Your task to perform on an android device: Open Chrome and go to the settings page Image 0: 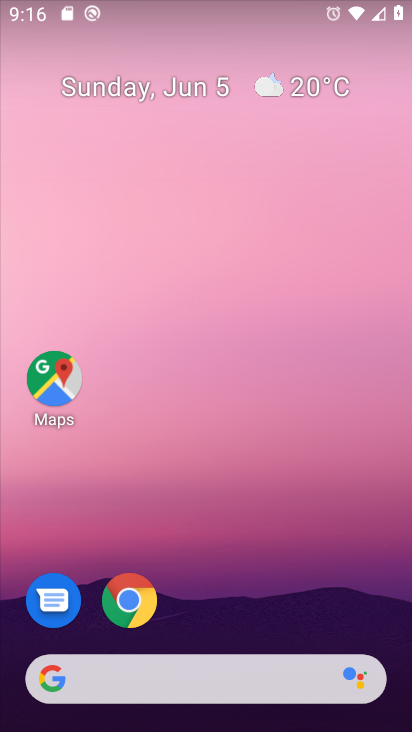
Step 0: click (140, 592)
Your task to perform on an android device: Open Chrome and go to the settings page Image 1: 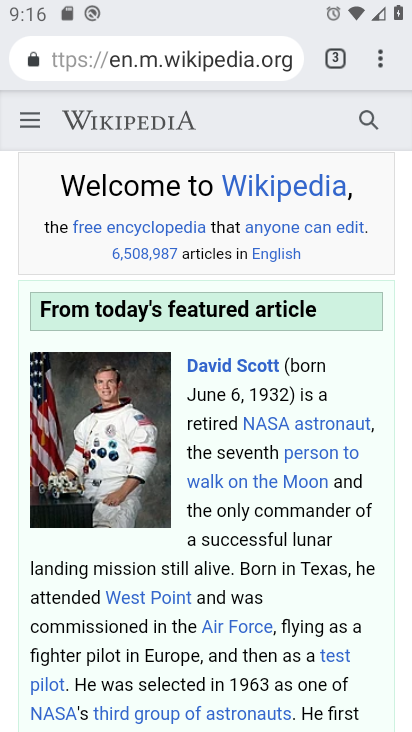
Step 1: click (383, 64)
Your task to perform on an android device: Open Chrome and go to the settings page Image 2: 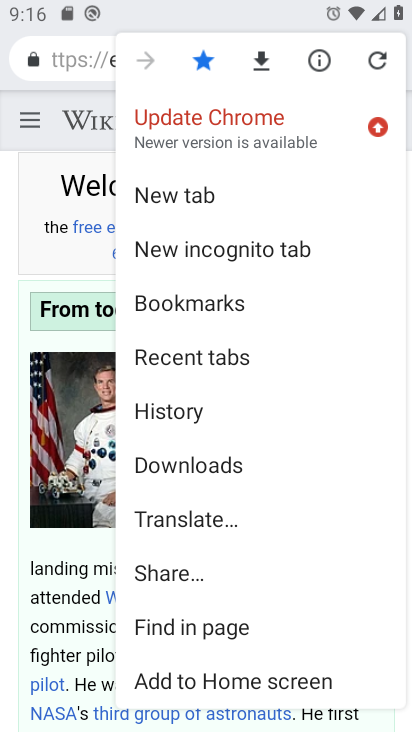
Step 2: drag from (273, 568) to (288, 152)
Your task to perform on an android device: Open Chrome and go to the settings page Image 3: 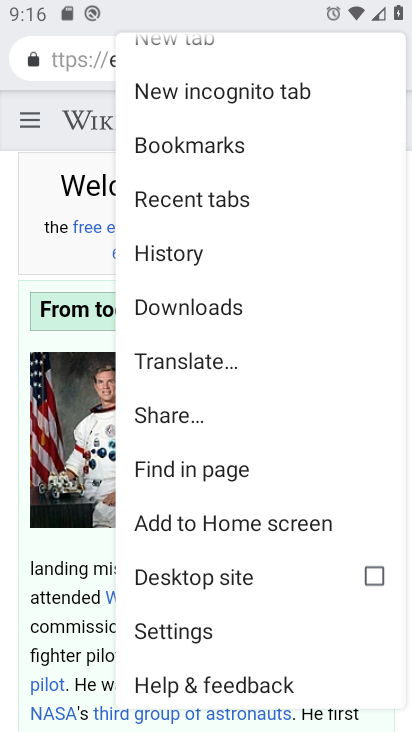
Step 3: click (216, 617)
Your task to perform on an android device: Open Chrome and go to the settings page Image 4: 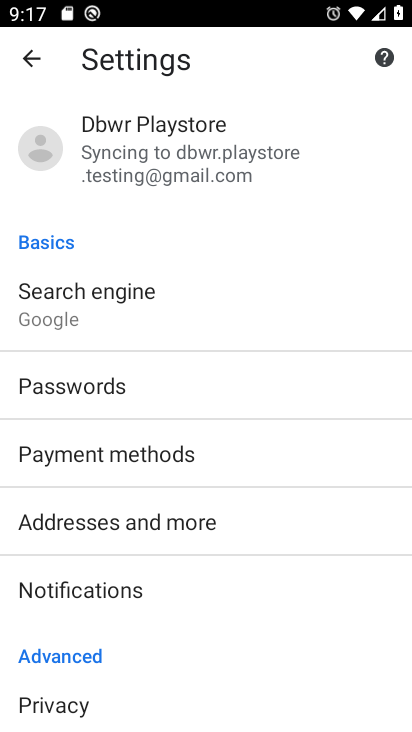
Step 4: task complete